Your task to perform on an android device: make emails show in primary in the gmail app Image 0: 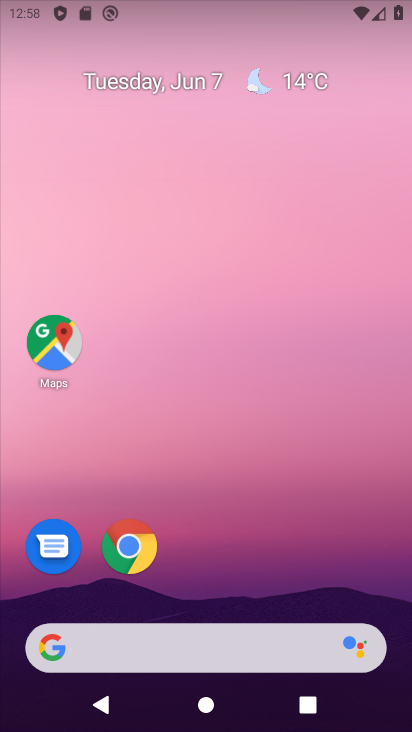
Step 0: drag from (217, 615) to (171, 33)
Your task to perform on an android device: make emails show in primary in the gmail app Image 1: 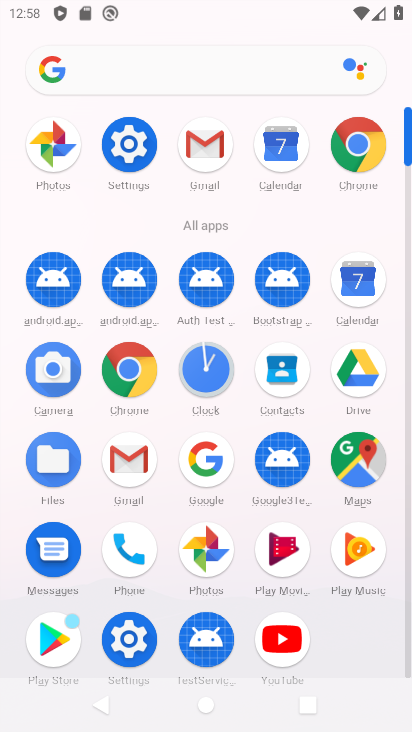
Step 1: click (136, 466)
Your task to perform on an android device: make emails show in primary in the gmail app Image 2: 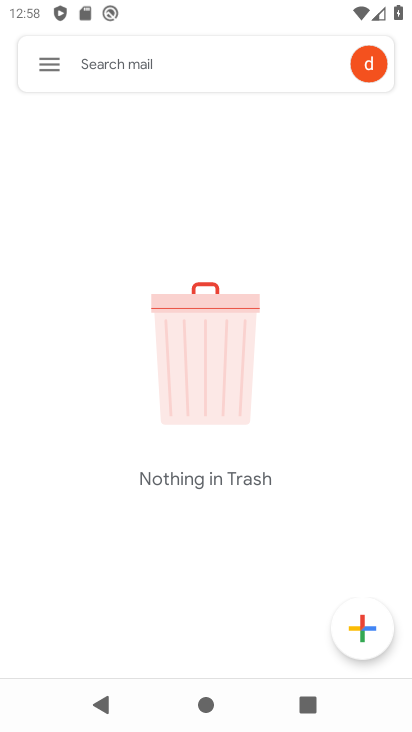
Step 2: click (36, 55)
Your task to perform on an android device: make emails show in primary in the gmail app Image 3: 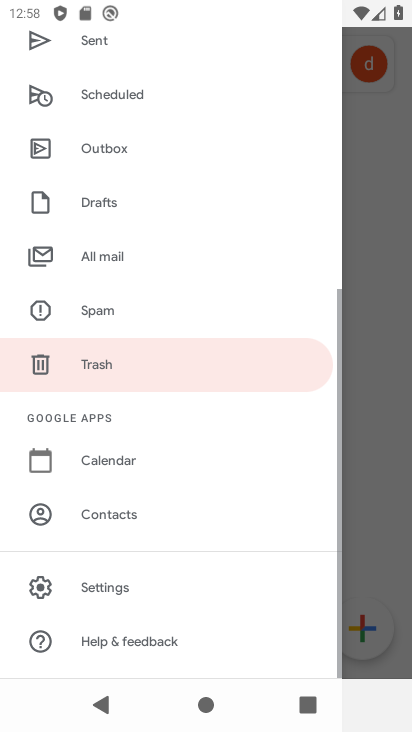
Step 3: drag from (60, 84) to (70, 625)
Your task to perform on an android device: make emails show in primary in the gmail app Image 4: 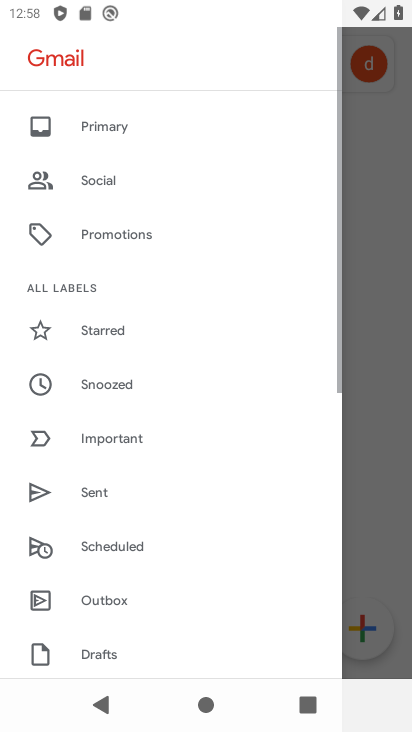
Step 4: click (81, 125)
Your task to perform on an android device: make emails show in primary in the gmail app Image 5: 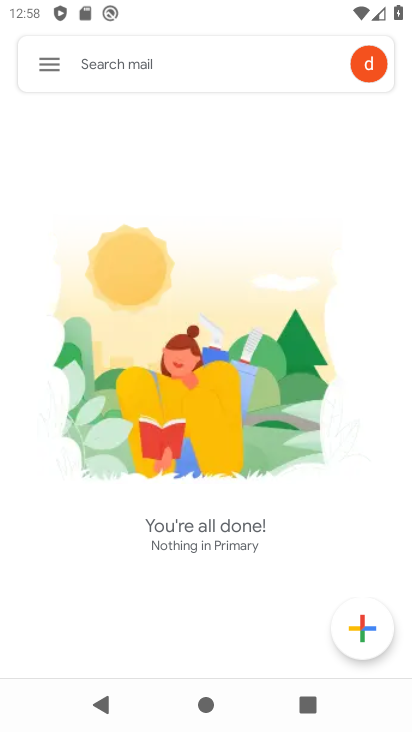
Step 5: task complete